Your task to perform on an android device: Show me recent news Image 0: 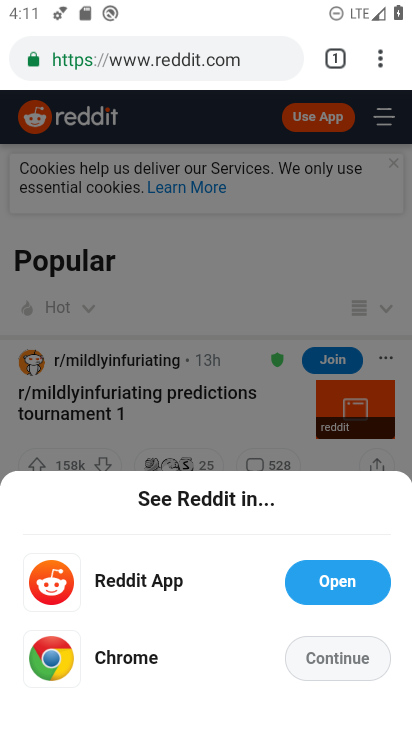
Step 0: press home button
Your task to perform on an android device: Show me recent news Image 1: 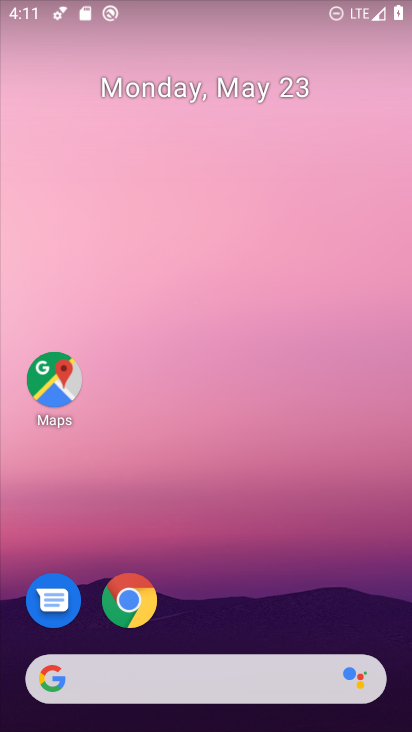
Step 1: click (111, 677)
Your task to perform on an android device: Show me recent news Image 2: 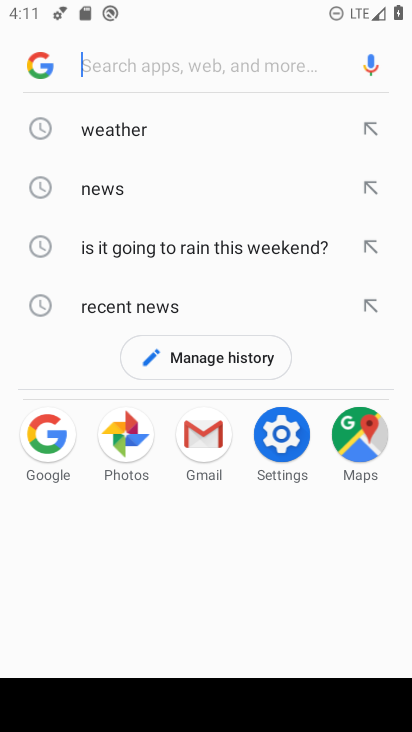
Step 2: click (126, 312)
Your task to perform on an android device: Show me recent news Image 3: 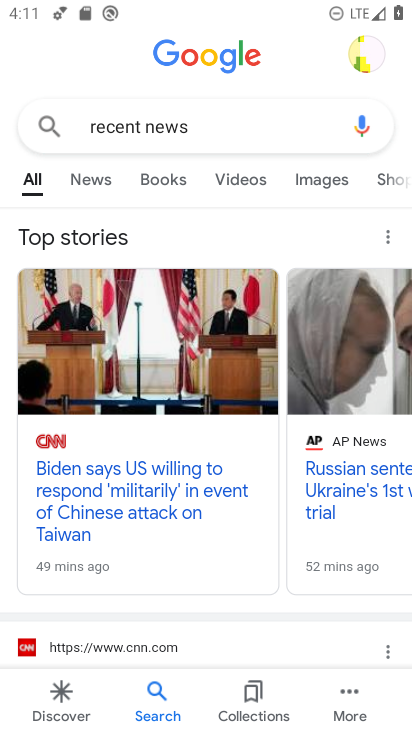
Step 3: click (92, 180)
Your task to perform on an android device: Show me recent news Image 4: 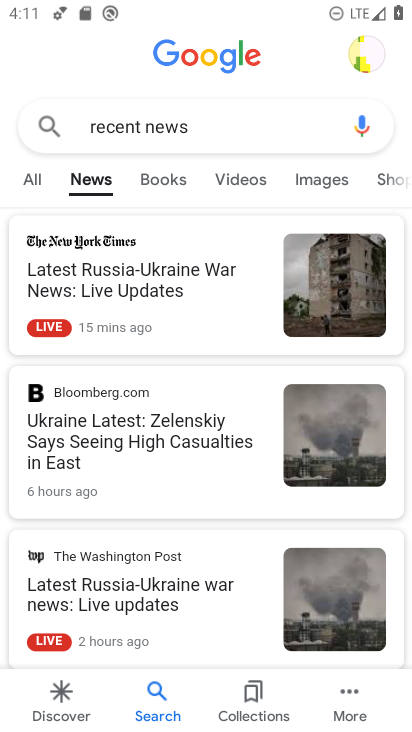
Step 4: click (135, 285)
Your task to perform on an android device: Show me recent news Image 5: 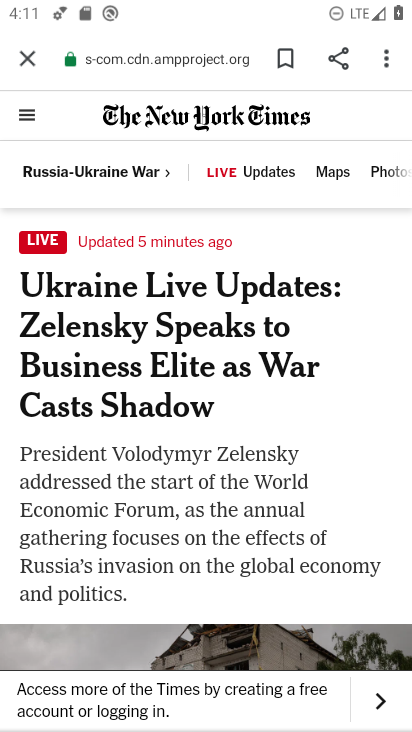
Step 5: task complete